Your task to perform on an android device: add a label to a message in the gmail app Image 0: 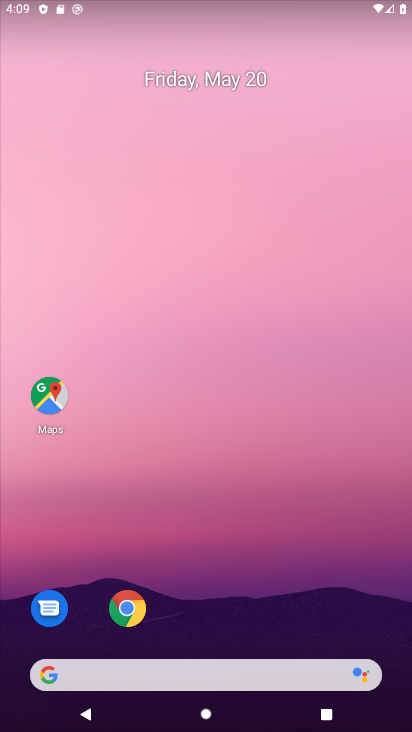
Step 0: drag from (206, 648) to (133, 111)
Your task to perform on an android device: add a label to a message in the gmail app Image 1: 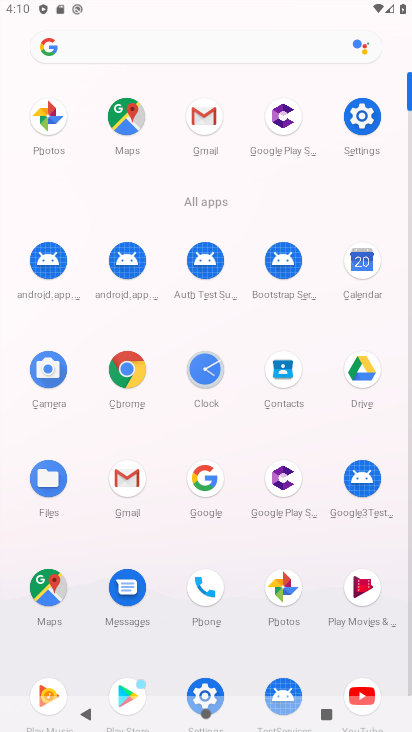
Step 1: click (114, 482)
Your task to perform on an android device: add a label to a message in the gmail app Image 2: 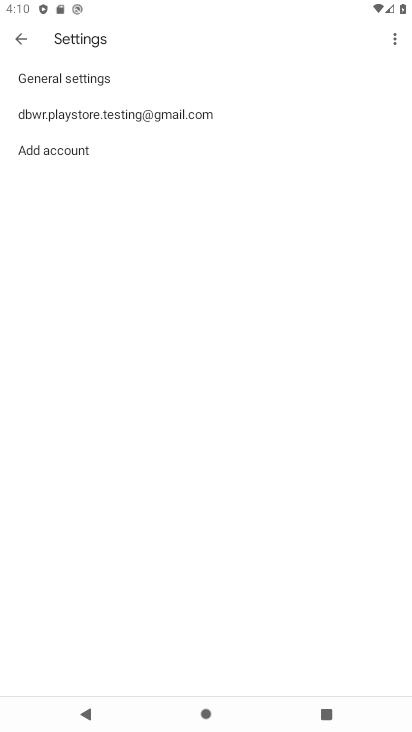
Step 2: click (21, 42)
Your task to perform on an android device: add a label to a message in the gmail app Image 3: 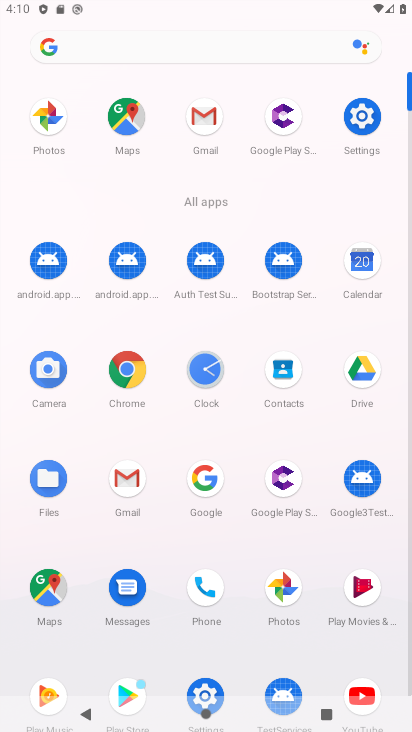
Step 3: click (132, 472)
Your task to perform on an android device: add a label to a message in the gmail app Image 4: 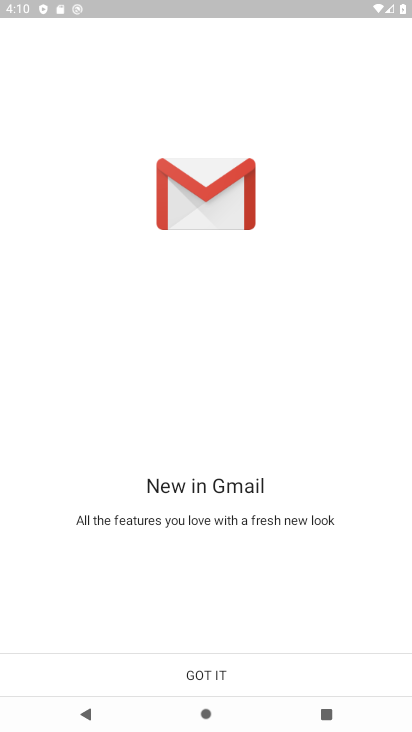
Step 4: click (164, 692)
Your task to perform on an android device: add a label to a message in the gmail app Image 5: 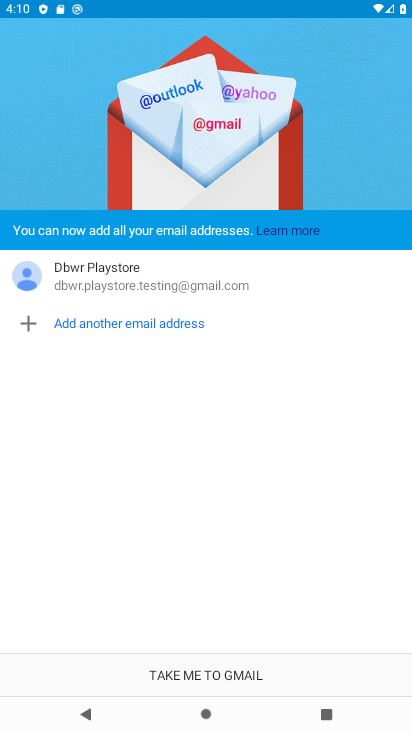
Step 5: click (160, 690)
Your task to perform on an android device: add a label to a message in the gmail app Image 6: 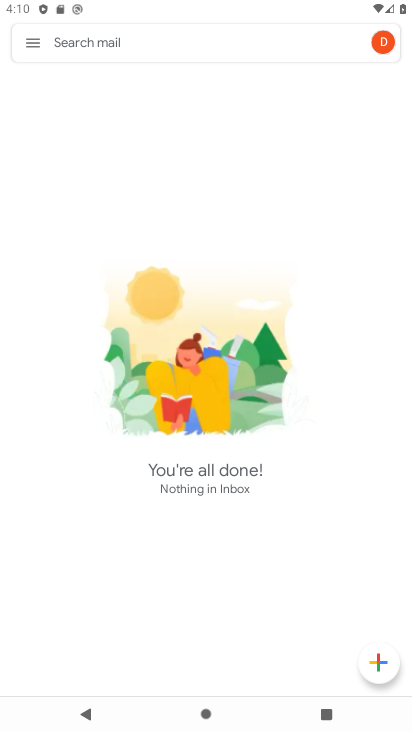
Step 6: task complete